Your task to perform on an android device: turn smart compose on in the gmail app Image 0: 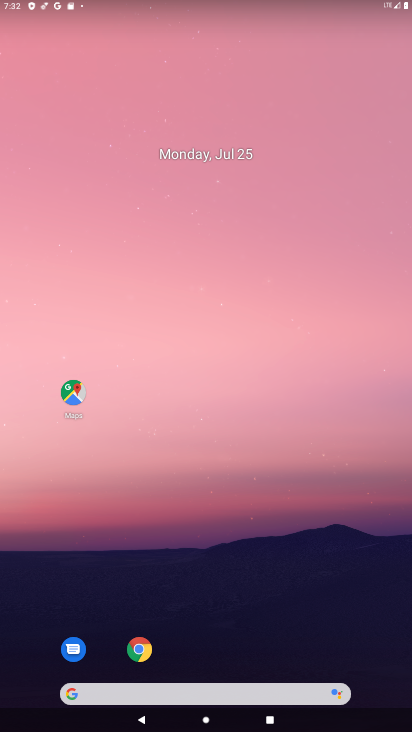
Step 0: drag from (227, 671) to (211, 190)
Your task to perform on an android device: turn smart compose on in the gmail app Image 1: 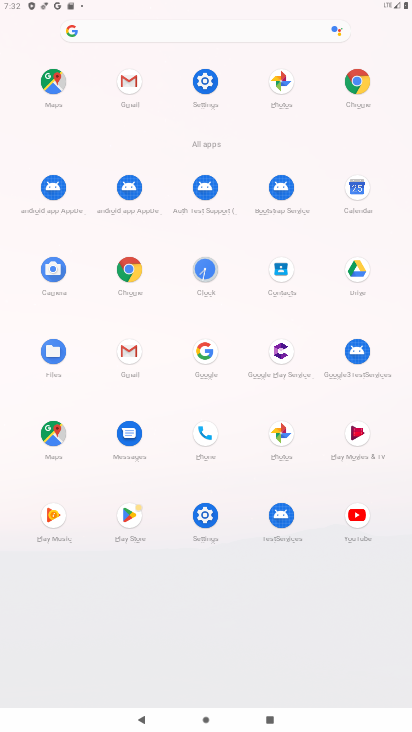
Step 1: click (135, 363)
Your task to perform on an android device: turn smart compose on in the gmail app Image 2: 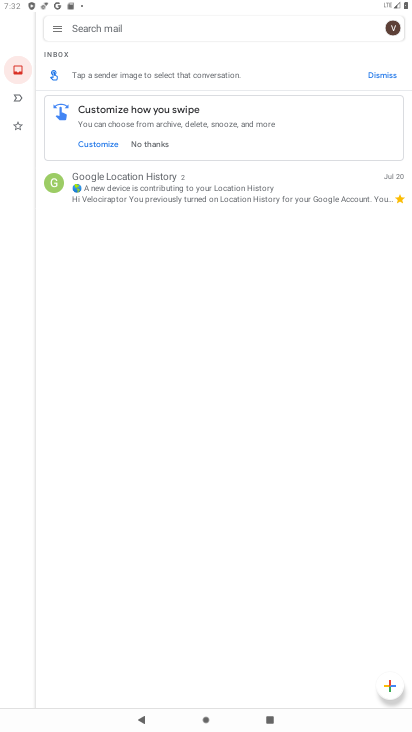
Step 2: click (54, 35)
Your task to perform on an android device: turn smart compose on in the gmail app Image 3: 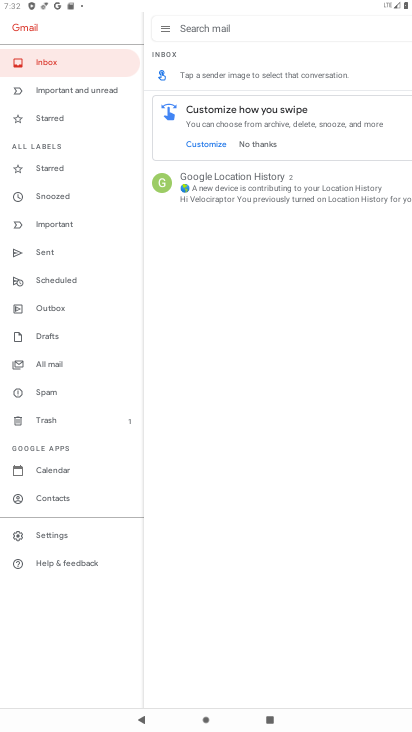
Step 3: click (25, 533)
Your task to perform on an android device: turn smart compose on in the gmail app Image 4: 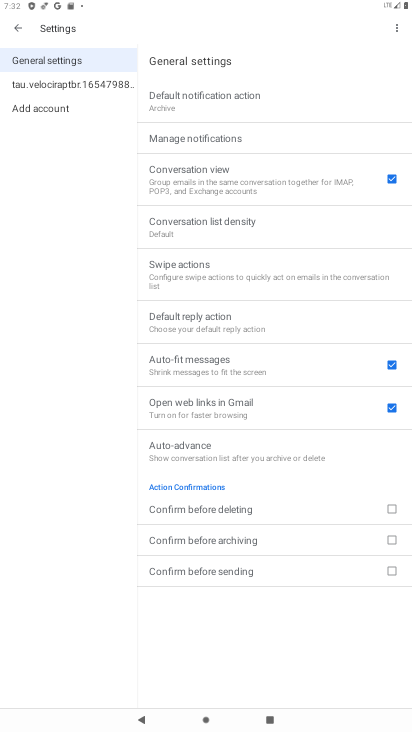
Step 4: click (29, 88)
Your task to perform on an android device: turn smart compose on in the gmail app Image 5: 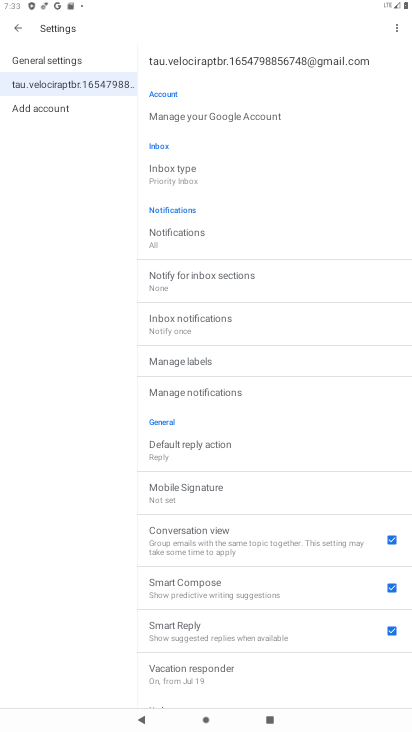
Step 5: task complete